Your task to perform on an android device: Go to Google maps Image 0: 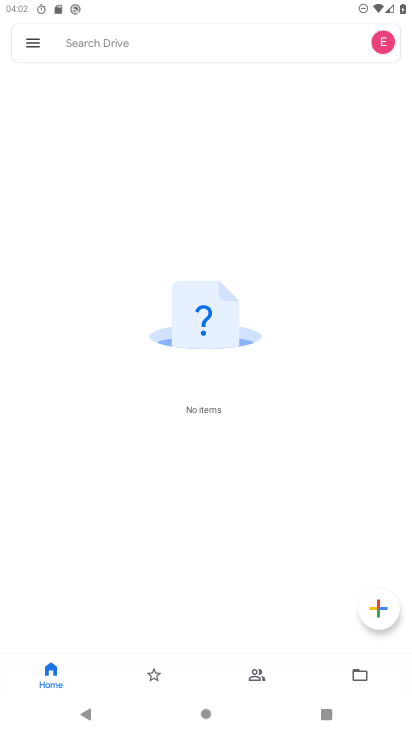
Step 0: press home button
Your task to perform on an android device: Go to Google maps Image 1: 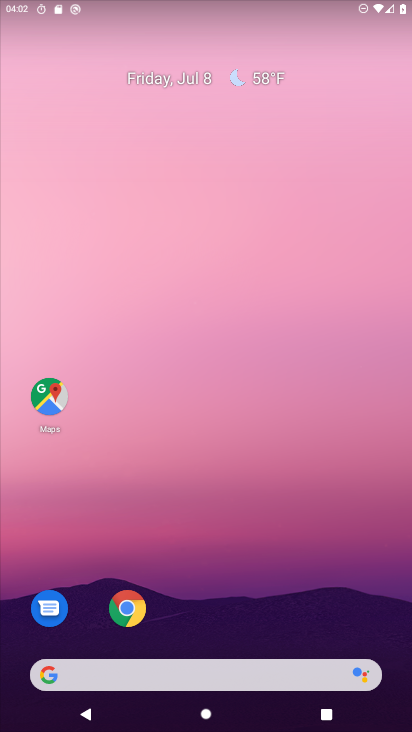
Step 1: drag from (260, 721) to (260, 110)
Your task to perform on an android device: Go to Google maps Image 2: 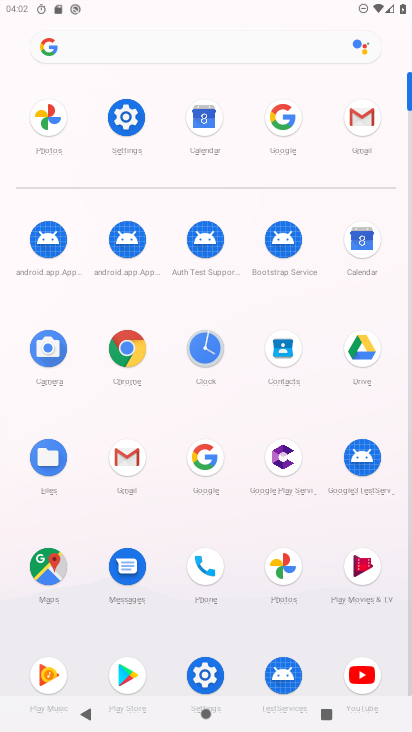
Step 2: click (43, 567)
Your task to perform on an android device: Go to Google maps Image 3: 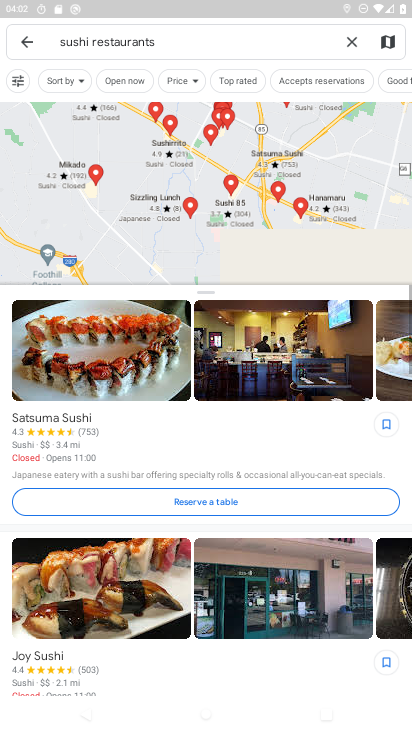
Step 3: task complete